Your task to perform on an android device: find which apps use the phone's location Image 0: 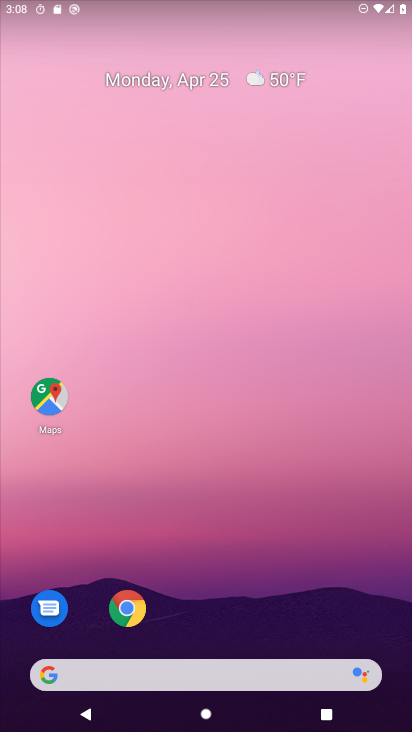
Step 0: drag from (220, 633) to (226, 202)
Your task to perform on an android device: find which apps use the phone's location Image 1: 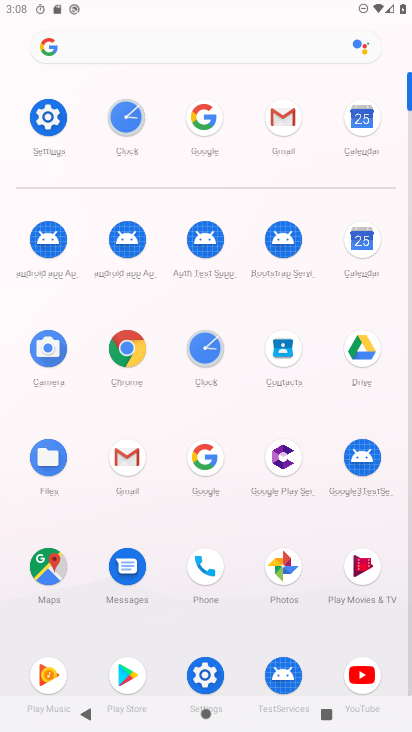
Step 1: click (190, 667)
Your task to perform on an android device: find which apps use the phone's location Image 2: 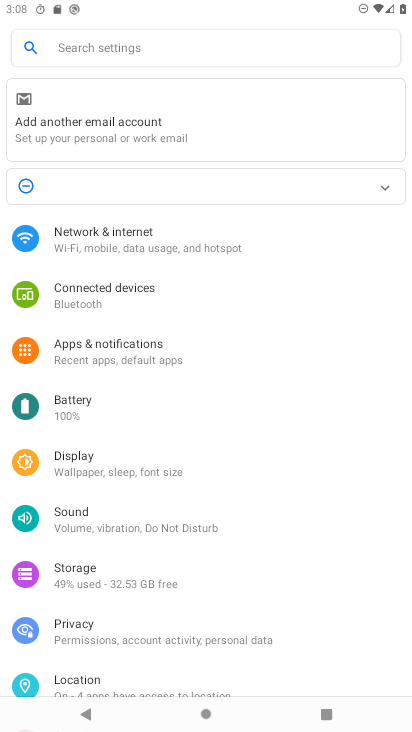
Step 2: click (118, 678)
Your task to perform on an android device: find which apps use the phone's location Image 3: 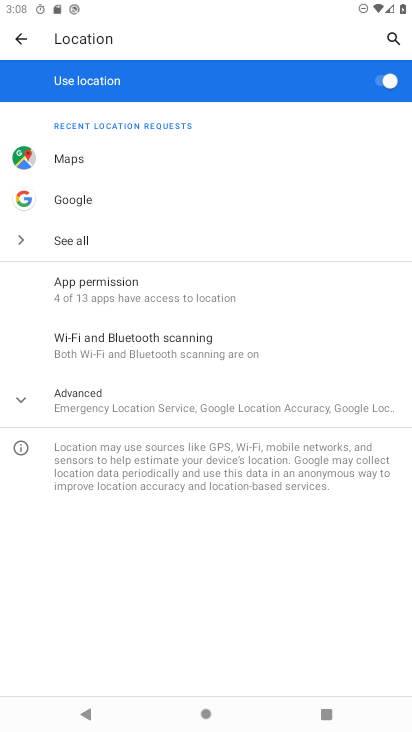
Step 3: click (117, 286)
Your task to perform on an android device: find which apps use the phone's location Image 4: 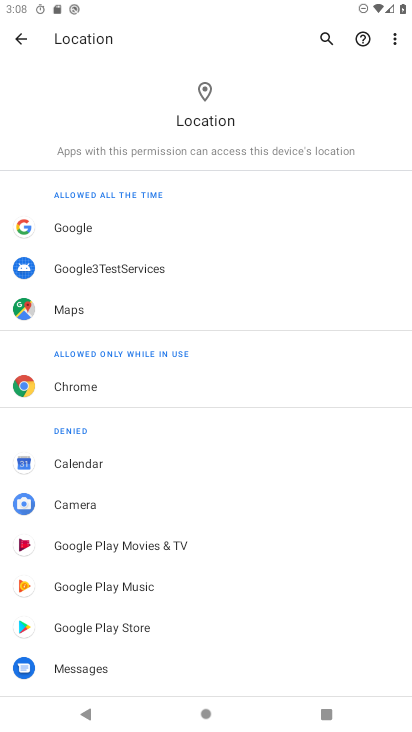
Step 4: task complete